Your task to perform on an android device: change your default location settings in chrome Image 0: 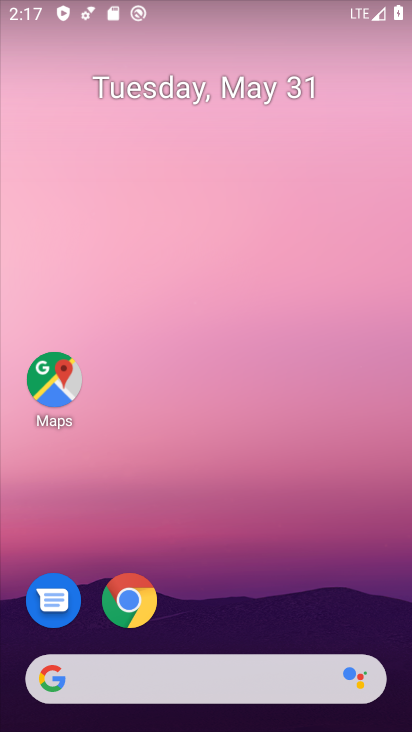
Step 0: click (127, 593)
Your task to perform on an android device: change your default location settings in chrome Image 1: 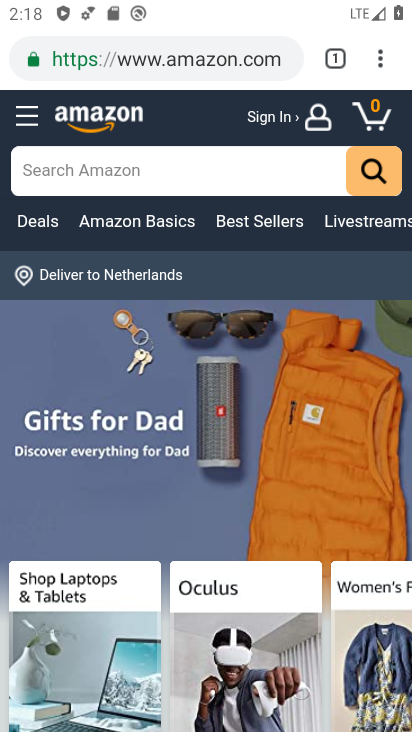
Step 1: click (381, 51)
Your task to perform on an android device: change your default location settings in chrome Image 2: 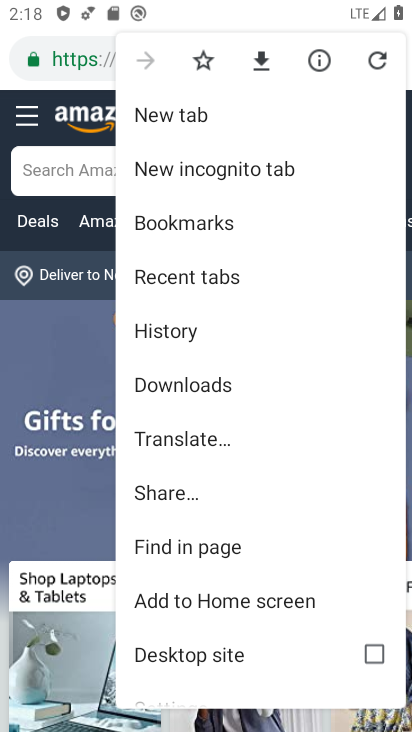
Step 2: drag from (266, 627) to (298, 133)
Your task to perform on an android device: change your default location settings in chrome Image 3: 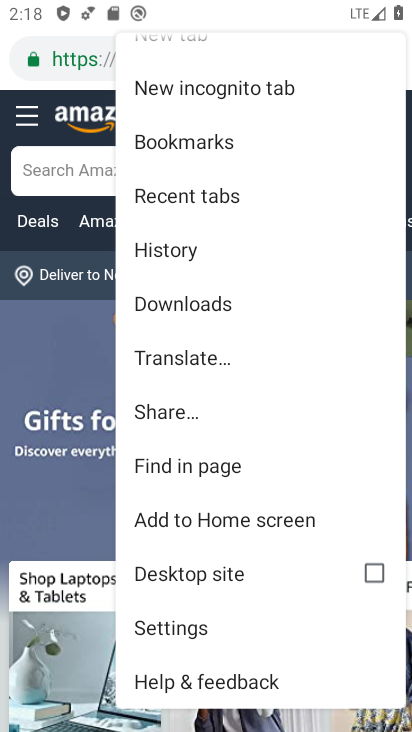
Step 3: click (212, 629)
Your task to perform on an android device: change your default location settings in chrome Image 4: 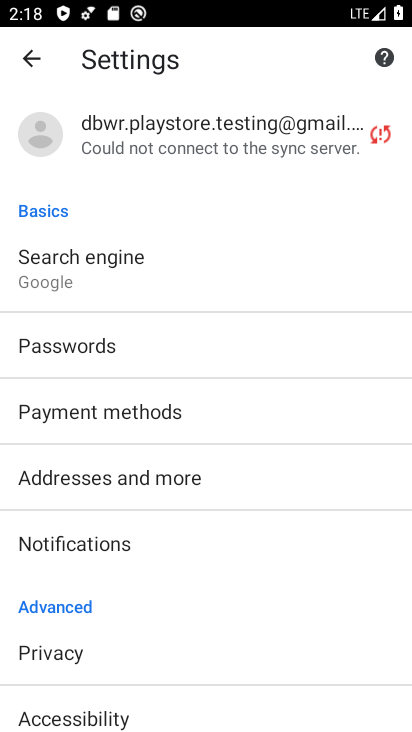
Step 4: drag from (209, 680) to (238, 119)
Your task to perform on an android device: change your default location settings in chrome Image 5: 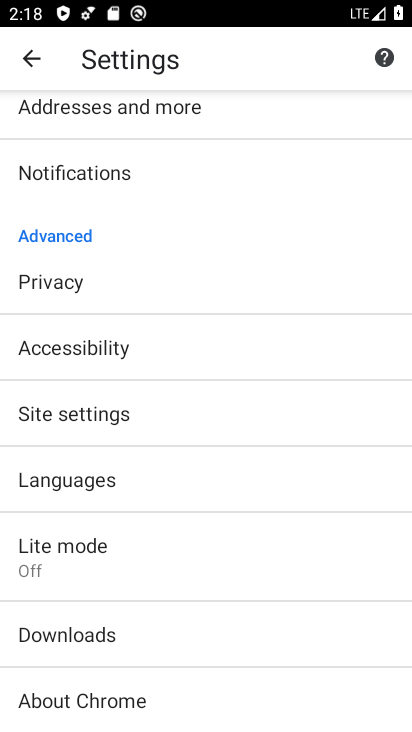
Step 5: click (140, 415)
Your task to perform on an android device: change your default location settings in chrome Image 6: 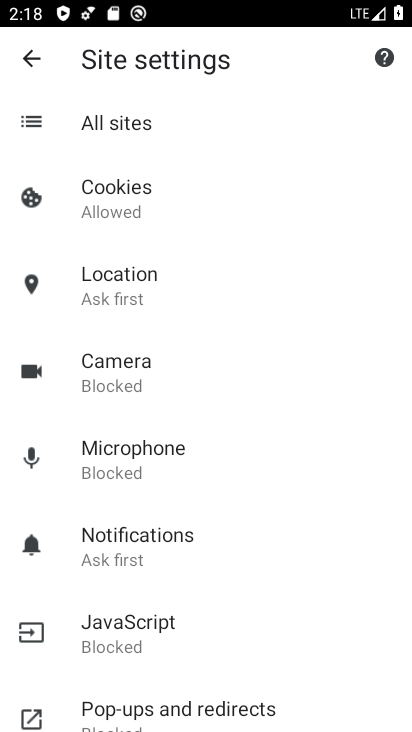
Step 6: click (157, 289)
Your task to perform on an android device: change your default location settings in chrome Image 7: 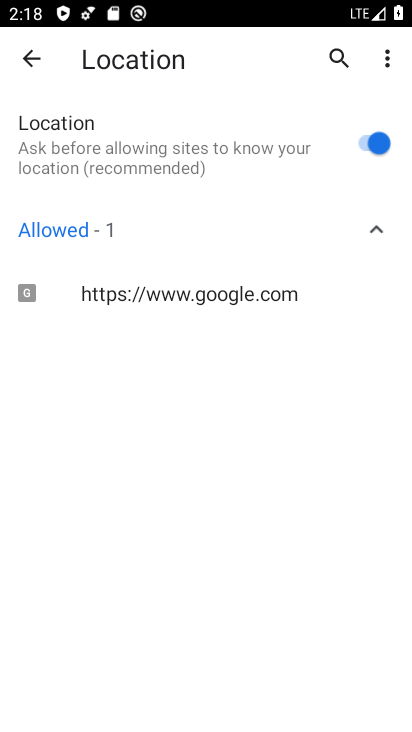
Step 7: click (372, 140)
Your task to perform on an android device: change your default location settings in chrome Image 8: 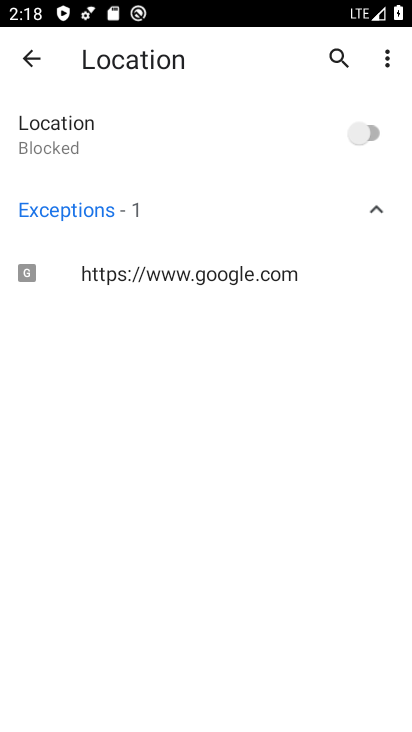
Step 8: task complete